Your task to perform on an android device: Clear all items from cart on amazon.com. Add "sony triple a" to the cart on amazon.com Image 0: 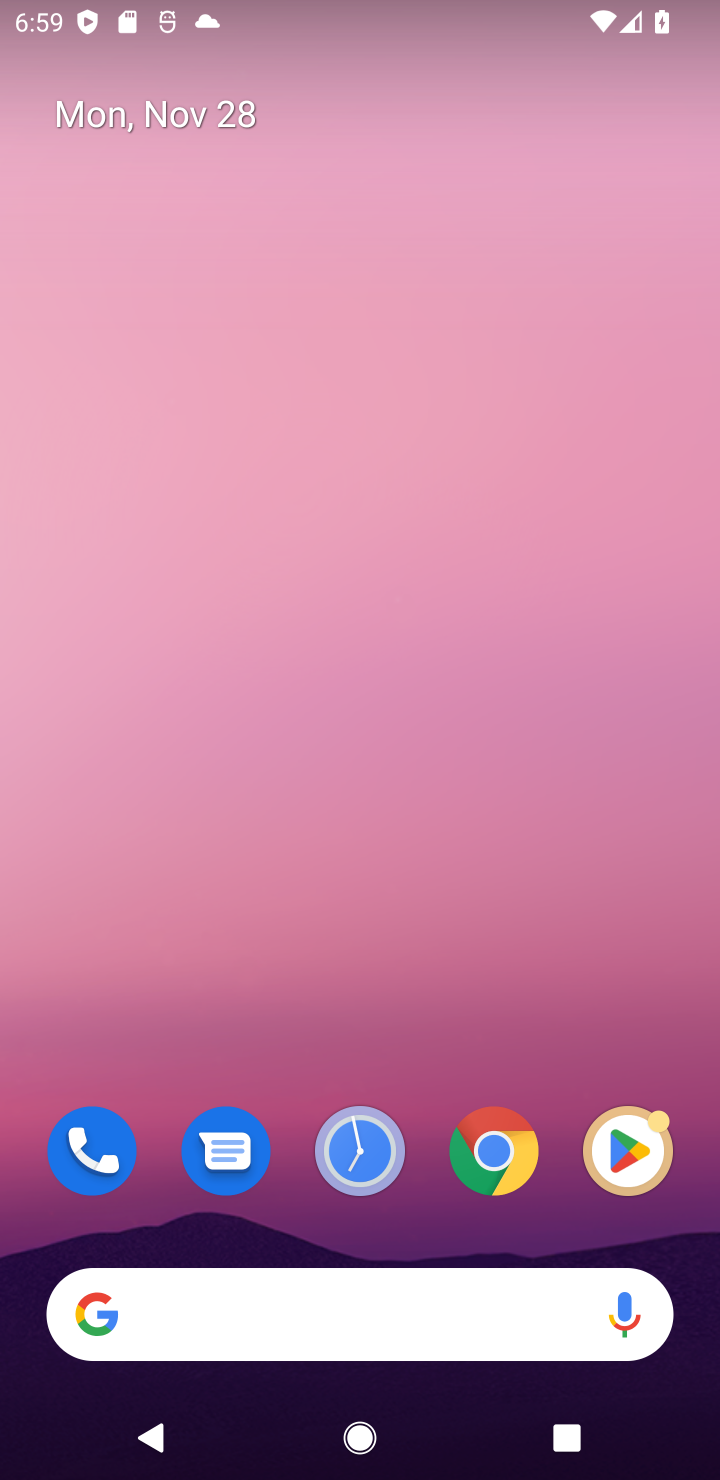
Step 0: click (315, 1346)
Your task to perform on an android device: Clear all items from cart on amazon.com. Add "sony triple a" to the cart on amazon.com Image 1: 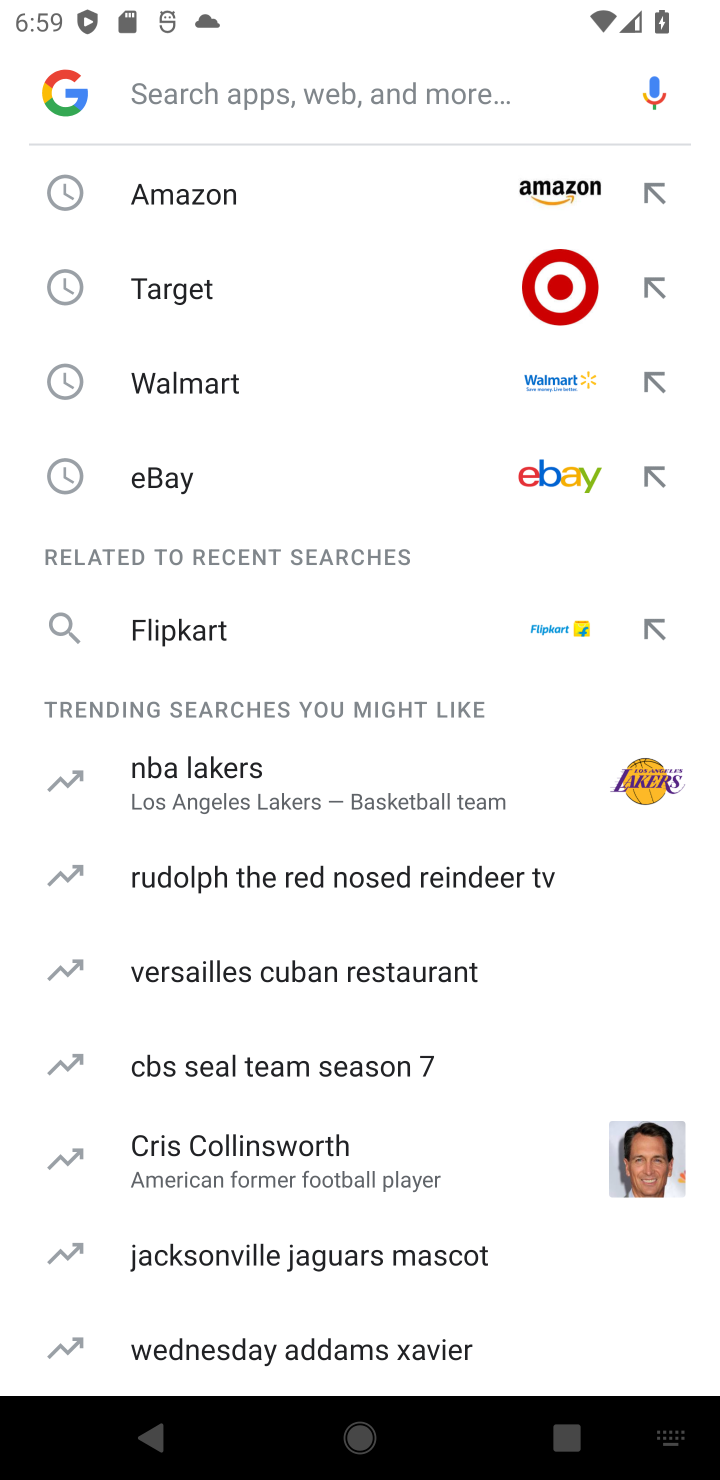
Step 1: type "amazon"
Your task to perform on an android device: Clear all items from cart on amazon.com. Add "sony triple a" to the cart on amazon.com Image 2: 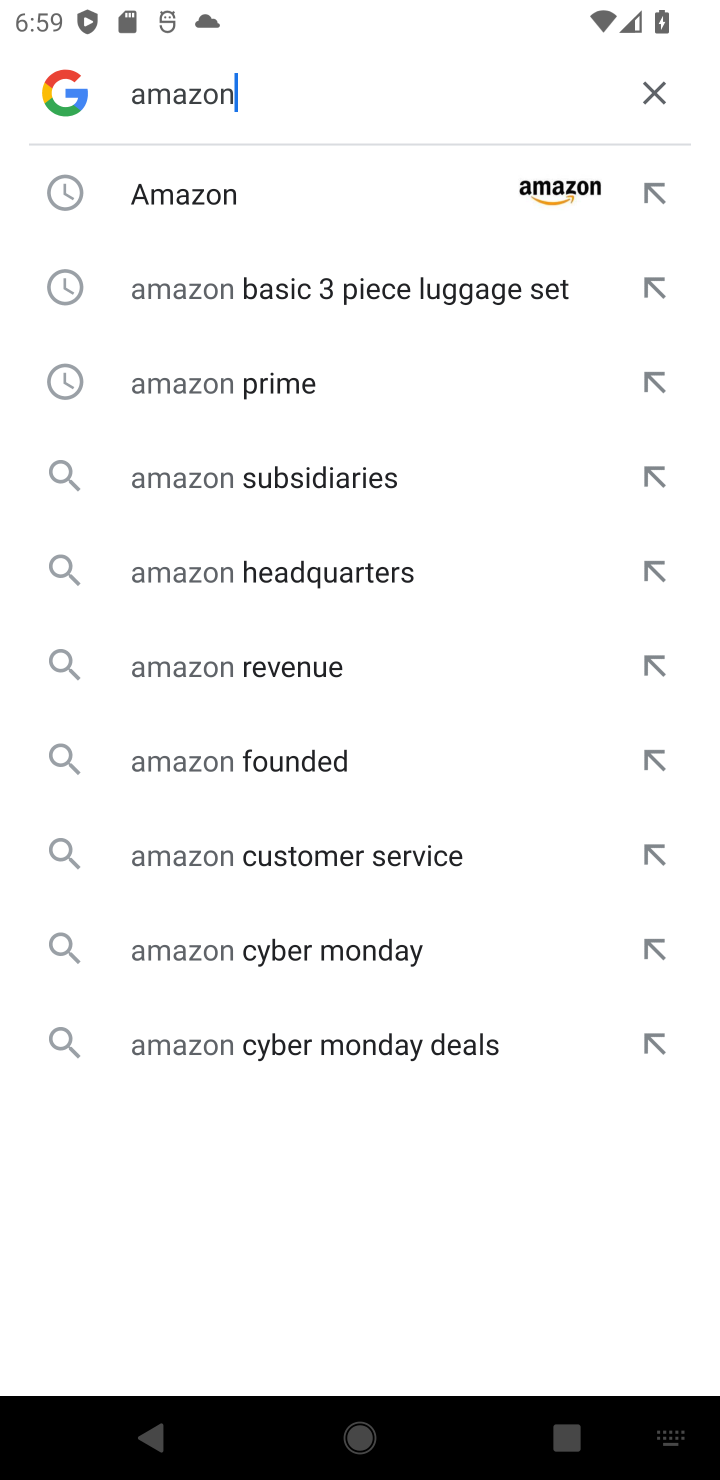
Step 2: click (230, 212)
Your task to perform on an android device: Clear all items from cart on amazon.com. Add "sony triple a" to the cart on amazon.com Image 3: 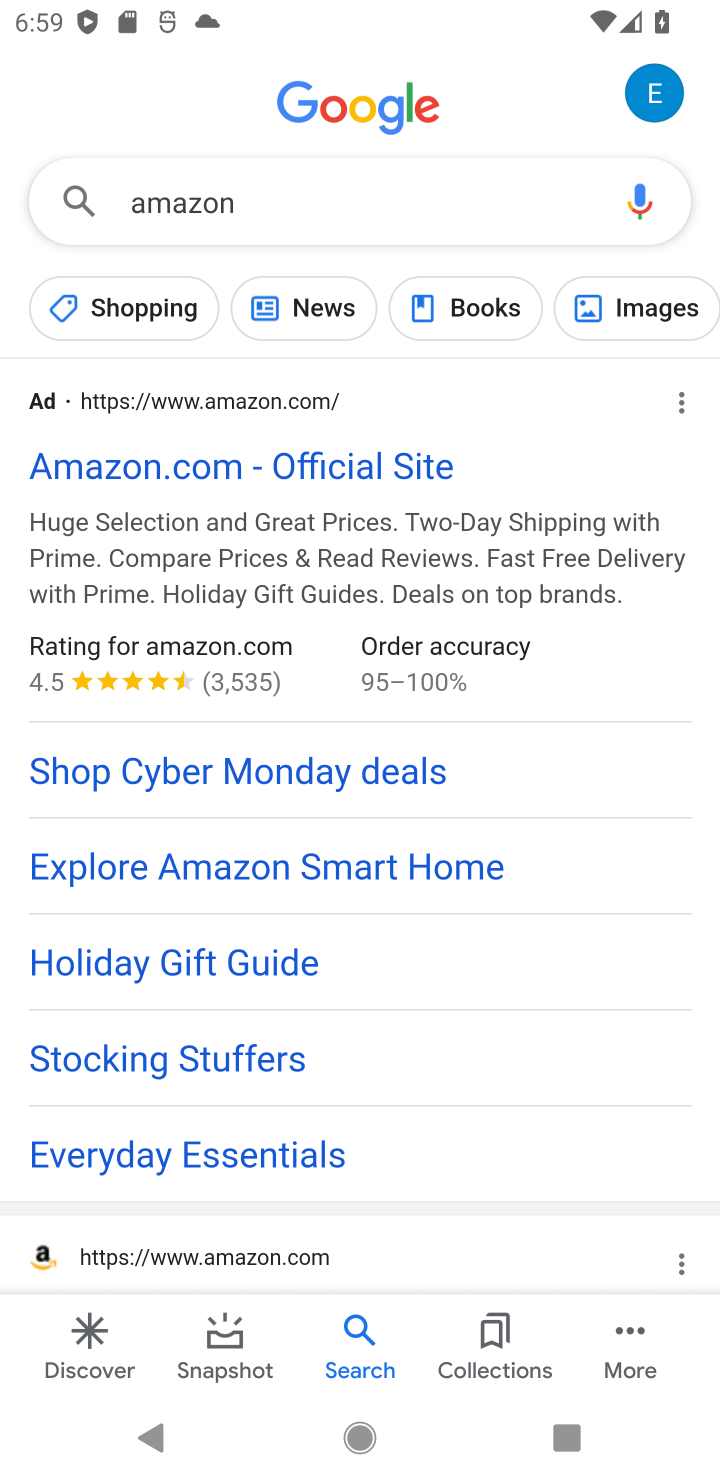
Step 3: click (231, 449)
Your task to perform on an android device: Clear all items from cart on amazon.com. Add "sony triple a" to the cart on amazon.com Image 4: 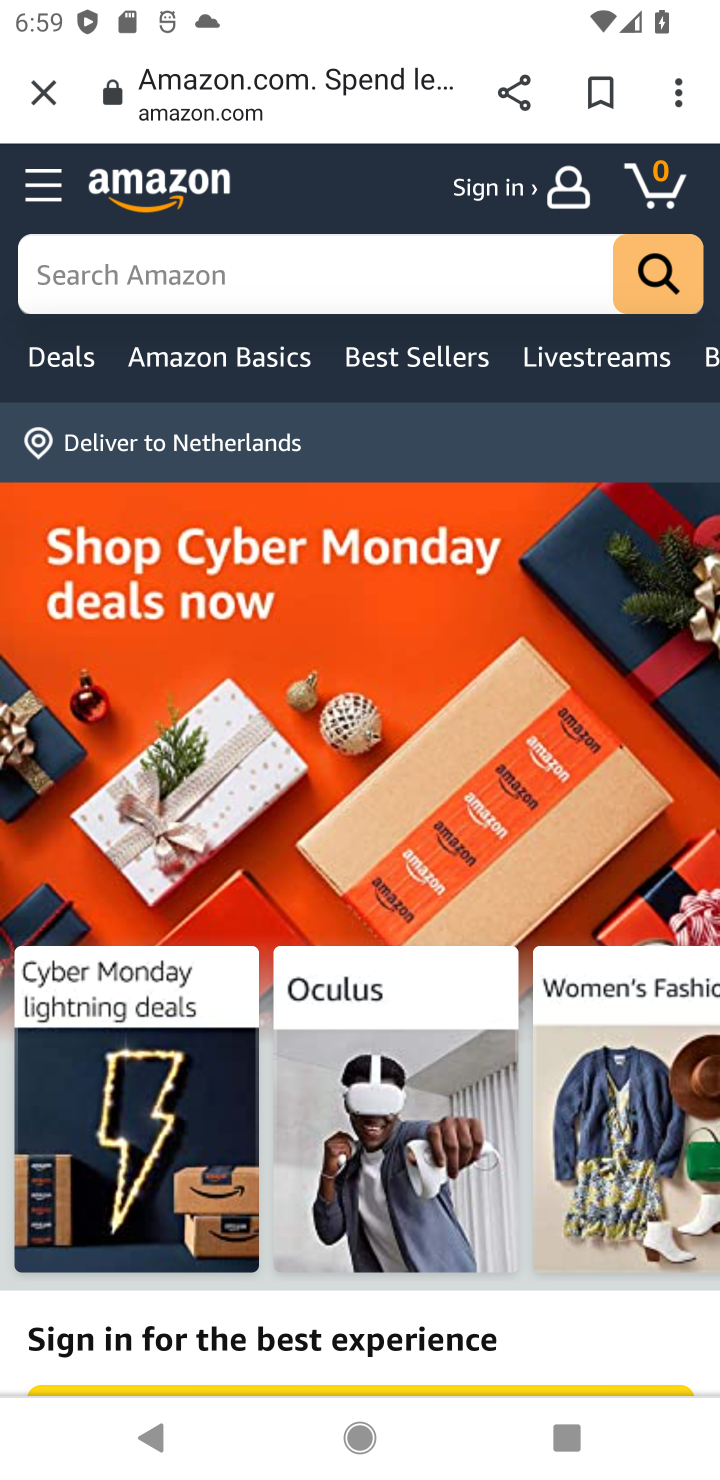
Step 4: click (255, 249)
Your task to perform on an android device: Clear all items from cart on amazon.com. Add "sony triple a" to the cart on amazon.com Image 5: 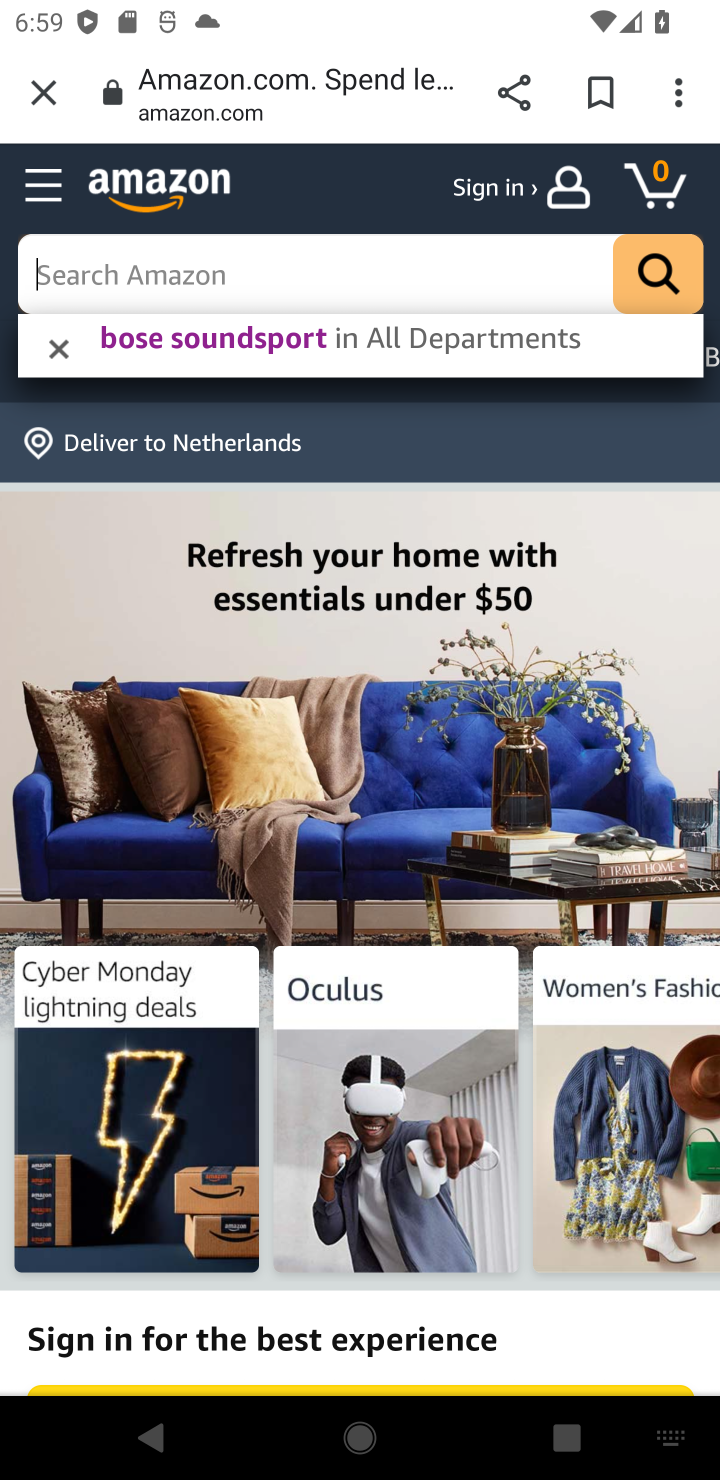
Step 5: type "sony triple a"
Your task to perform on an android device: Clear all items from cart on amazon.com. Add "sony triple a" to the cart on amazon.com Image 6: 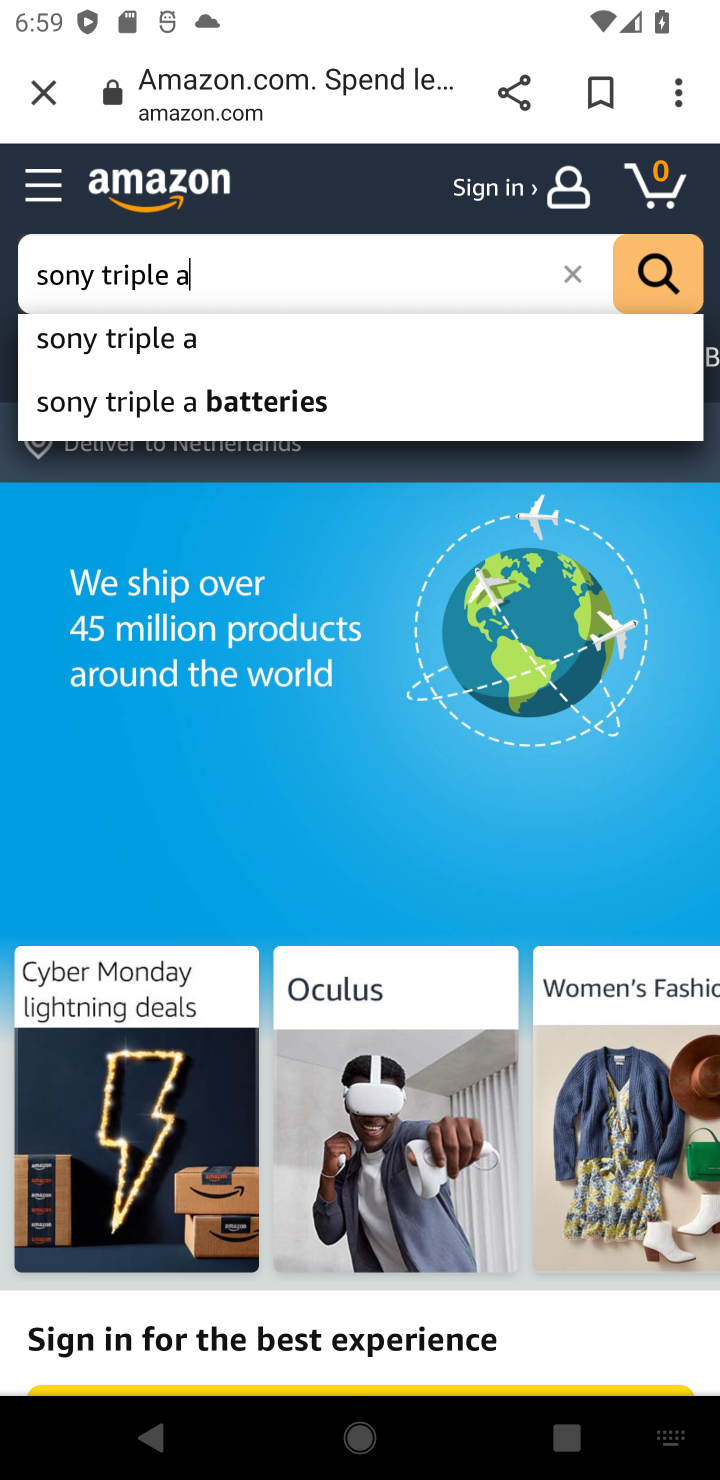
Step 6: click (228, 423)
Your task to perform on an android device: Clear all items from cart on amazon.com. Add "sony triple a" to the cart on amazon.com Image 7: 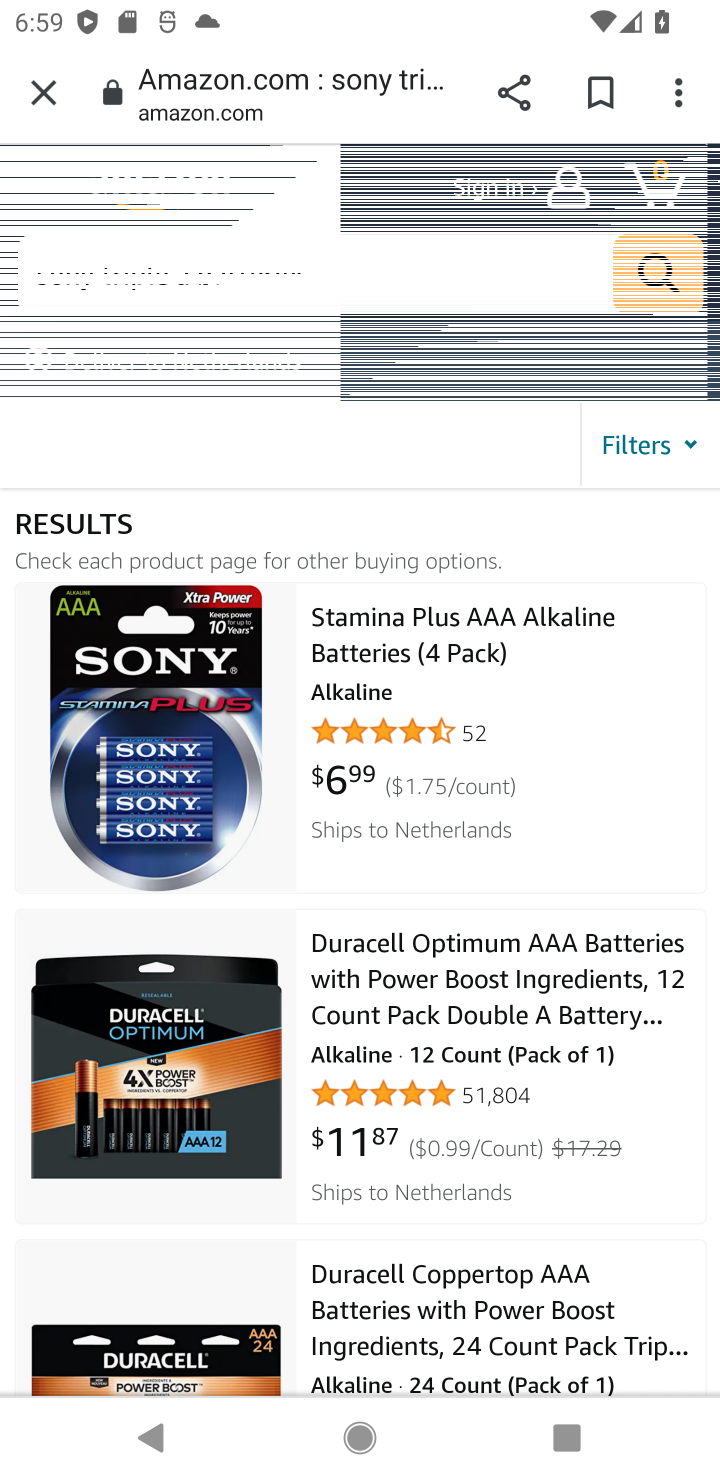
Step 7: click (339, 651)
Your task to perform on an android device: Clear all items from cart on amazon.com. Add "sony triple a" to the cart on amazon.com Image 8: 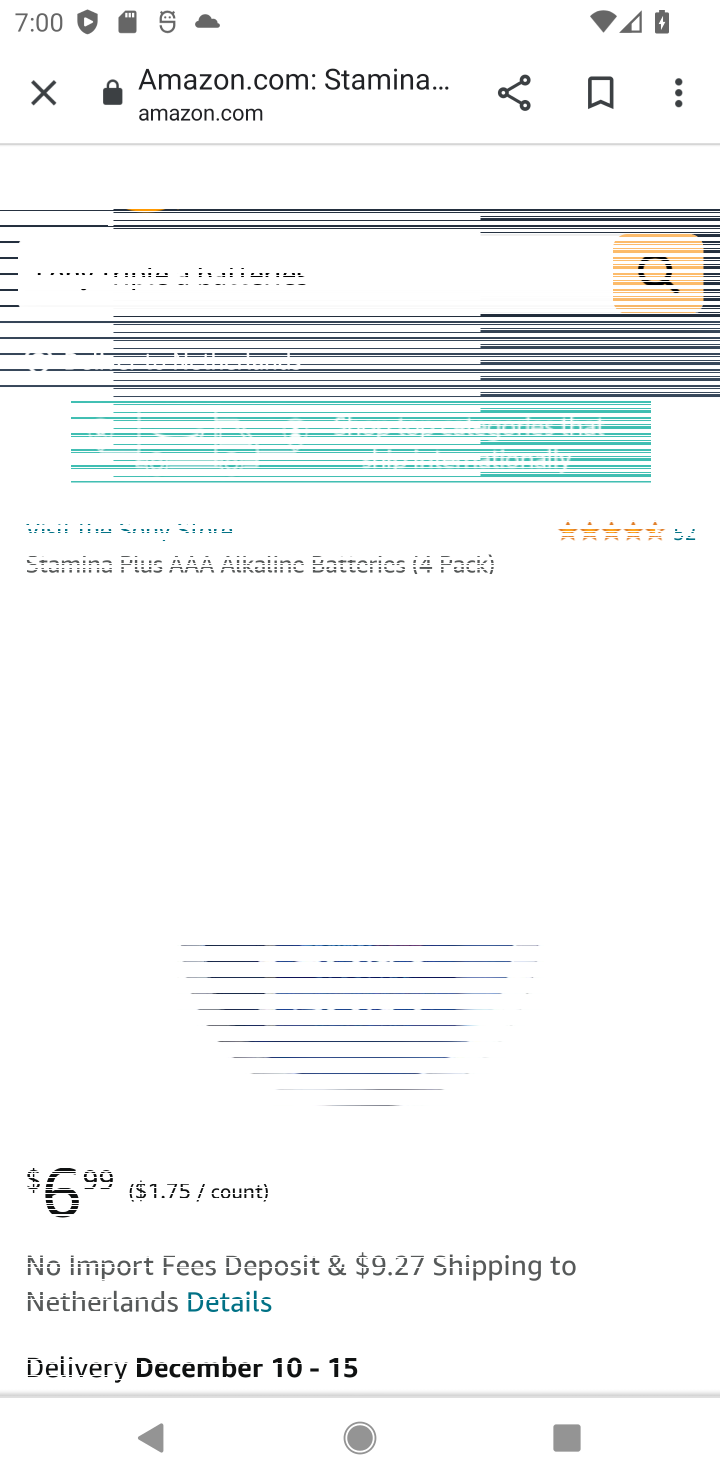
Step 8: drag from (592, 1287) to (582, 405)
Your task to perform on an android device: Clear all items from cart on amazon.com. Add "sony triple a" to the cart on amazon.com Image 9: 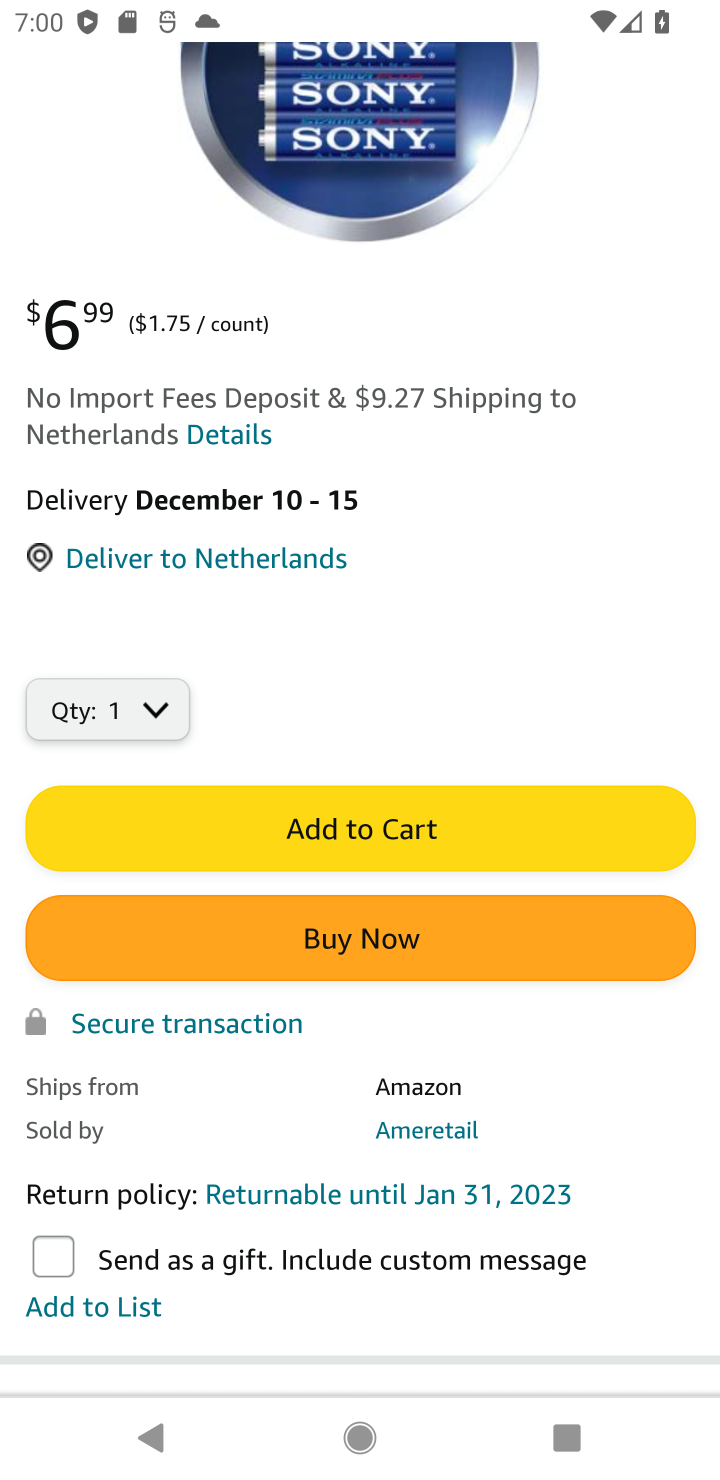
Step 9: click (415, 838)
Your task to perform on an android device: Clear all items from cart on amazon.com. Add "sony triple a" to the cart on amazon.com Image 10: 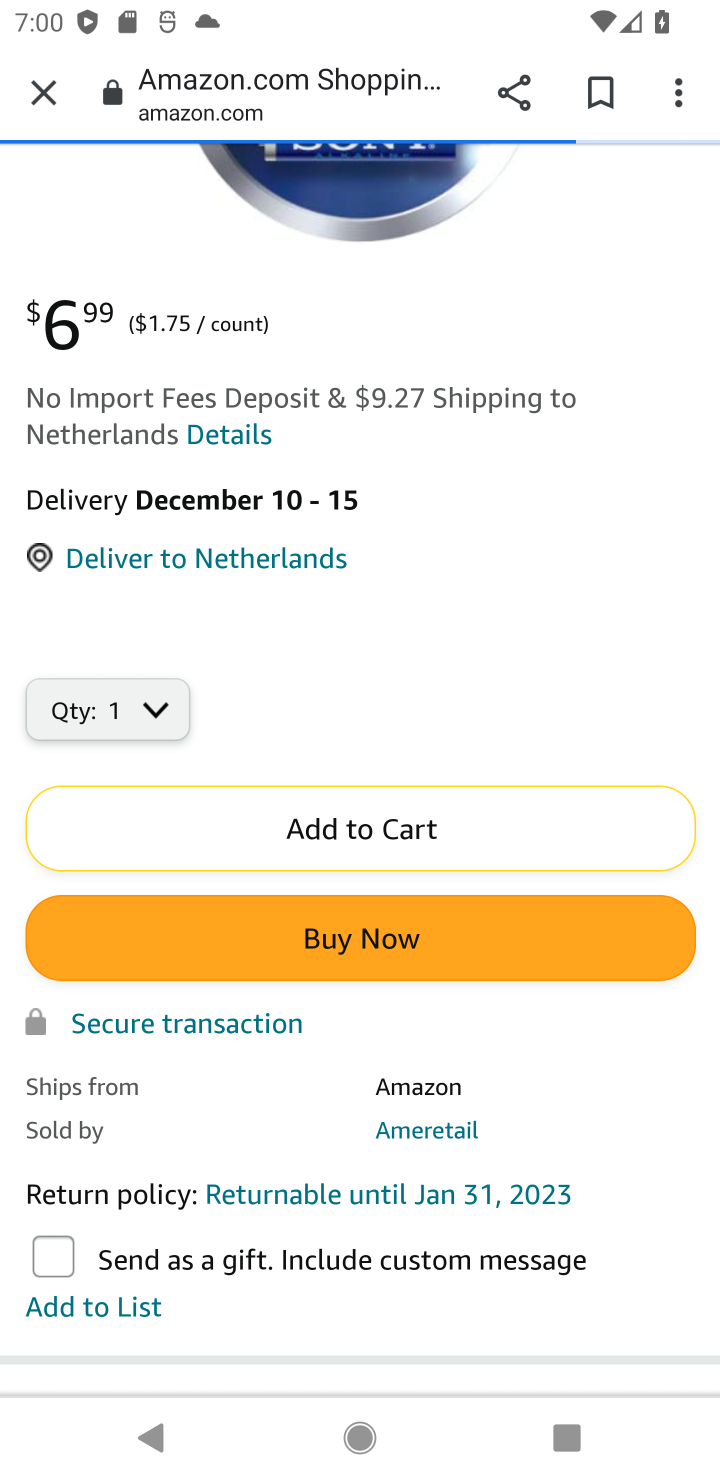
Step 10: task complete